Your task to perform on an android device: Go to Amazon Image 0: 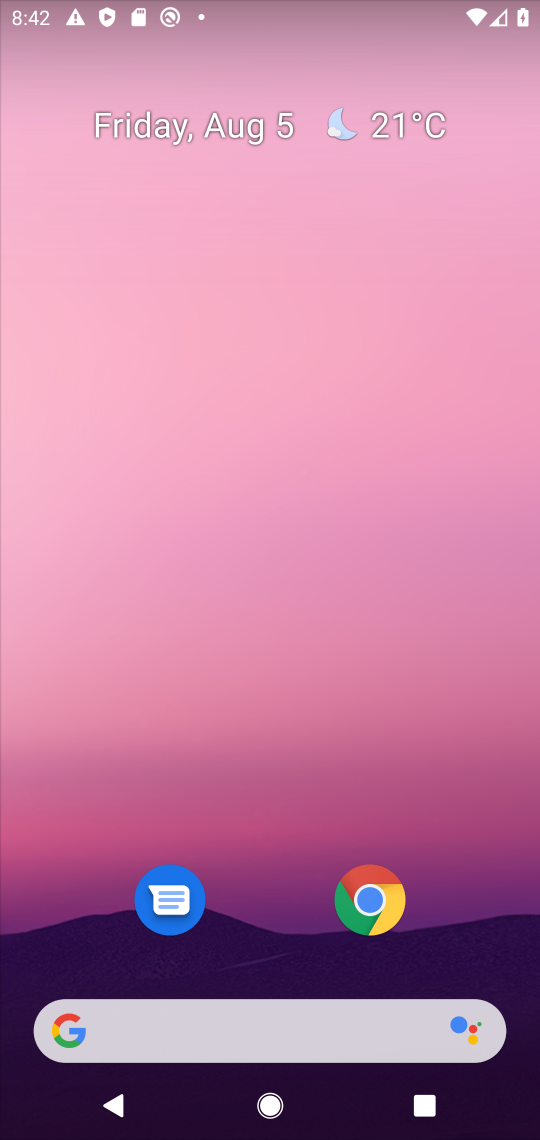
Step 0: click (378, 911)
Your task to perform on an android device: Go to Amazon Image 1: 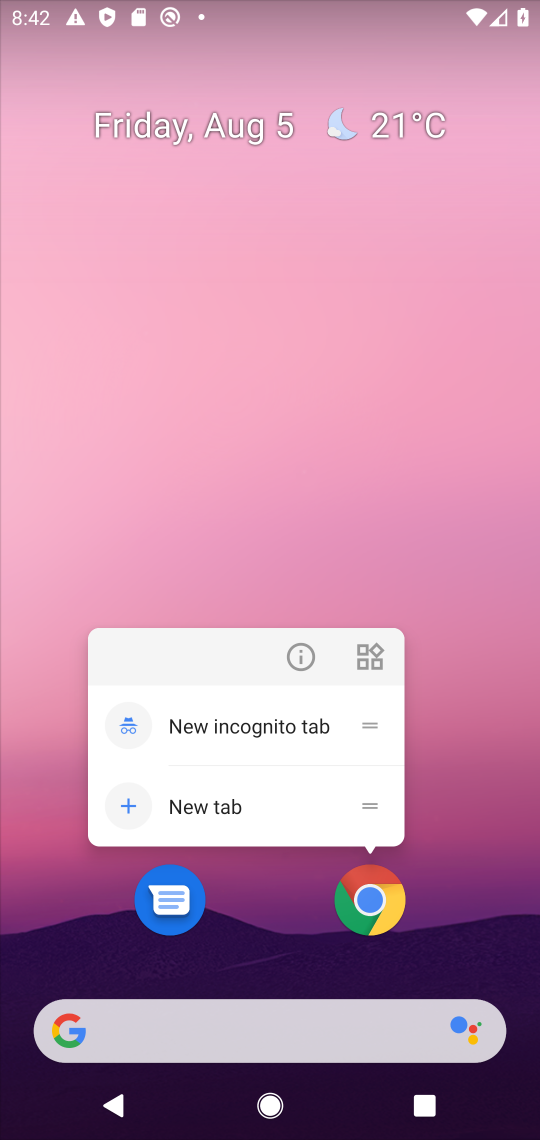
Step 1: click (396, 910)
Your task to perform on an android device: Go to Amazon Image 2: 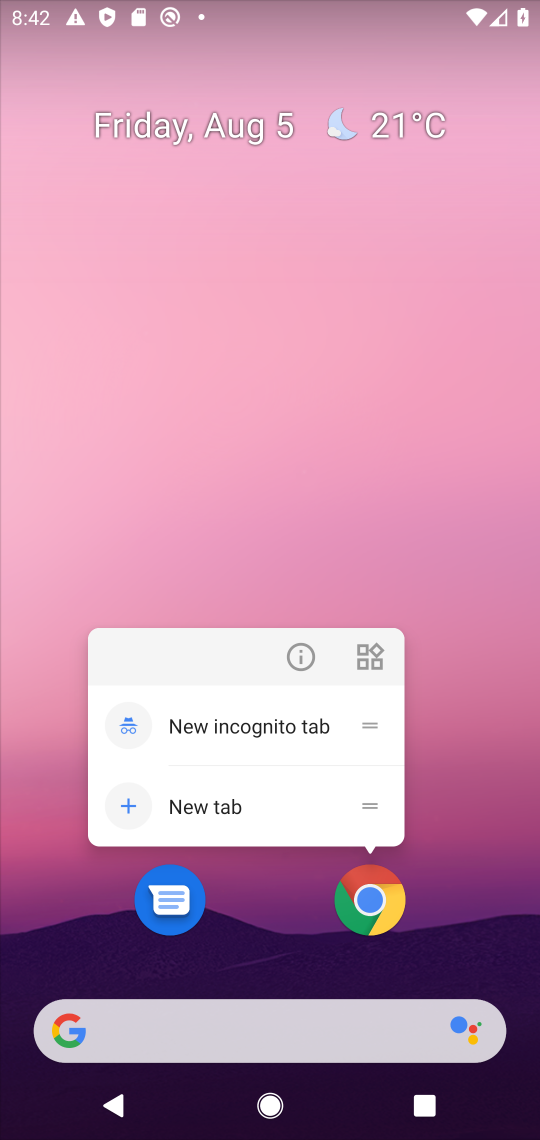
Step 2: click (396, 910)
Your task to perform on an android device: Go to Amazon Image 3: 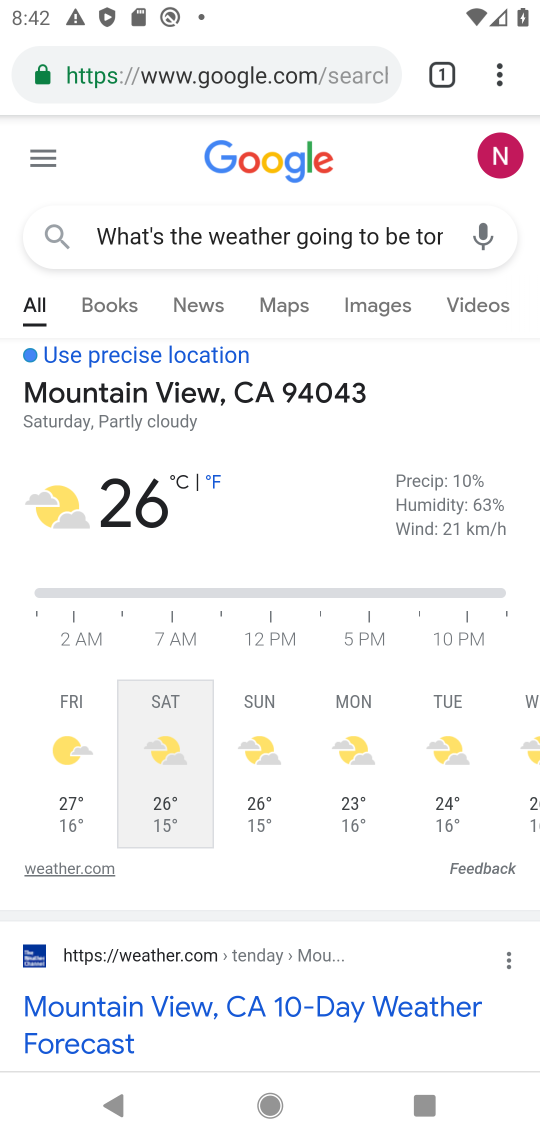
Step 3: click (321, 71)
Your task to perform on an android device: Go to Amazon Image 4: 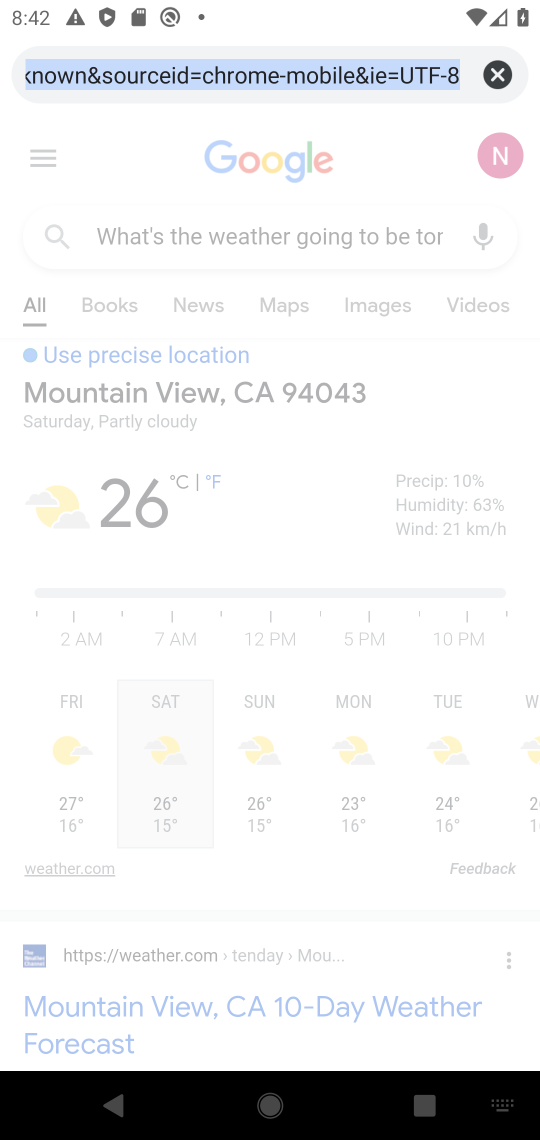
Step 4: type "amazon"
Your task to perform on an android device: Go to Amazon Image 5: 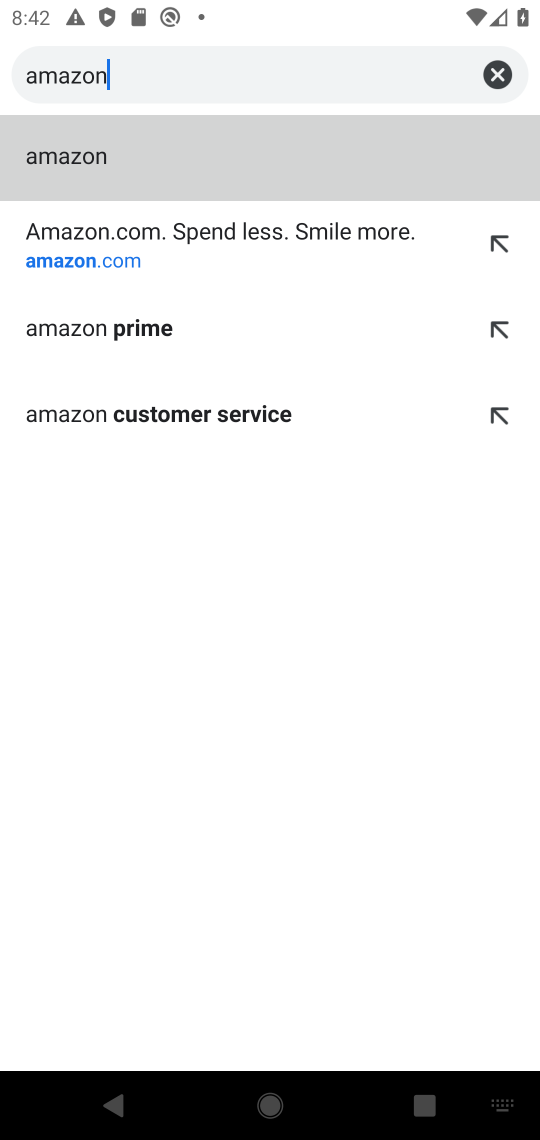
Step 5: click (406, 242)
Your task to perform on an android device: Go to Amazon Image 6: 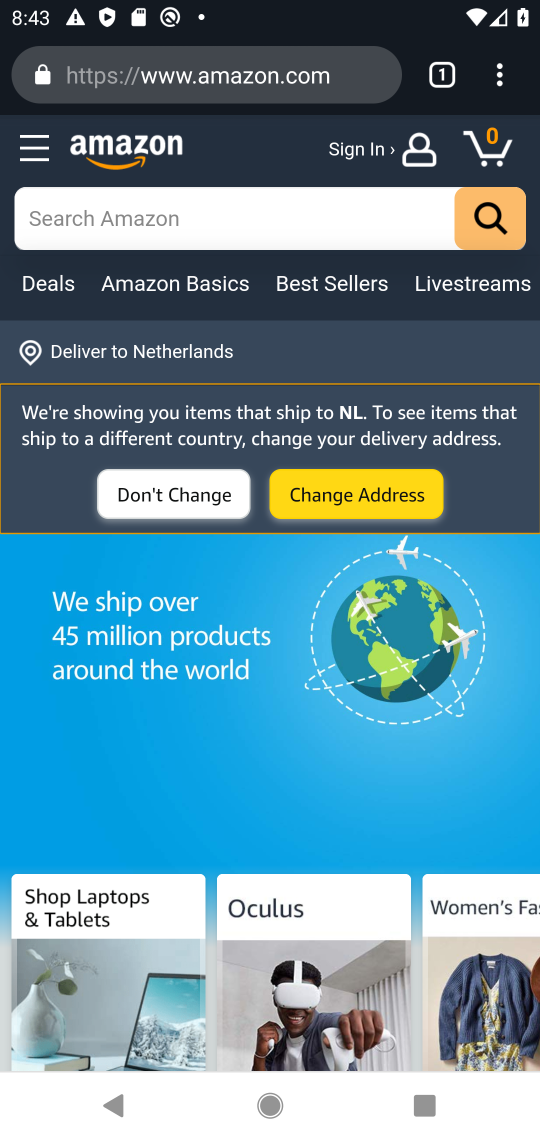
Step 6: task complete